Your task to perform on an android device: Open Chrome and go to settings Image 0: 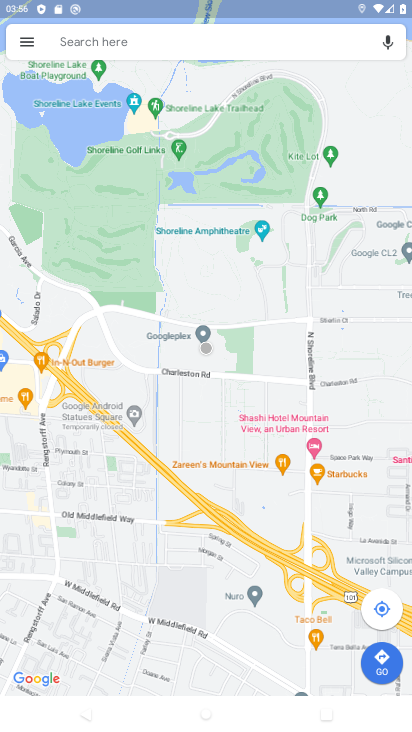
Step 0: press back button
Your task to perform on an android device: Open Chrome and go to settings Image 1: 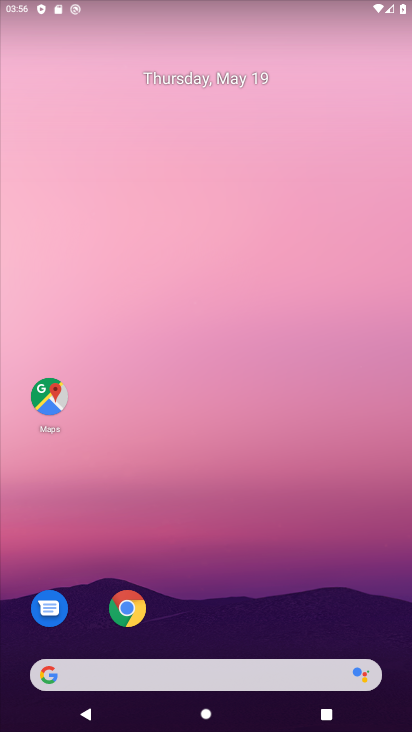
Step 1: click (127, 608)
Your task to perform on an android device: Open Chrome and go to settings Image 2: 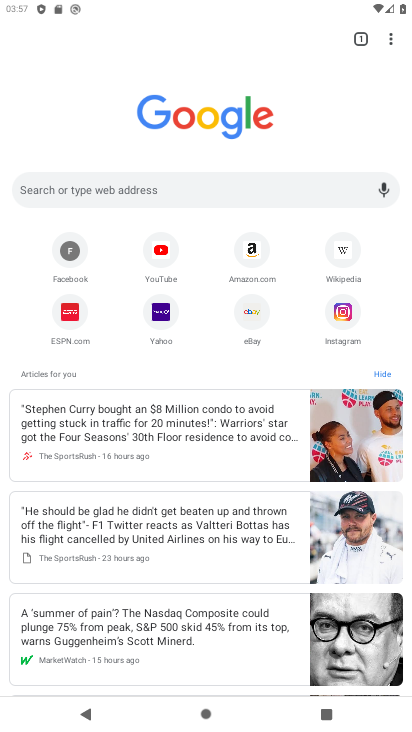
Step 2: click (391, 40)
Your task to perform on an android device: Open Chrome and go to settings Image 3: 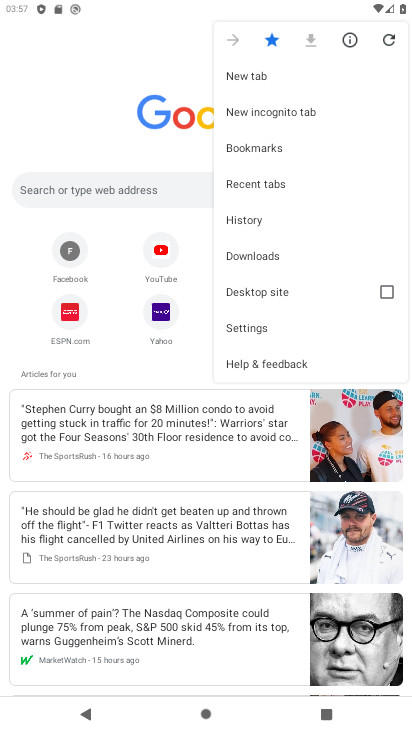
Step 3: click (264, 326)
Your task to perform on an android device: Open Chrome and go to settings Image 4: 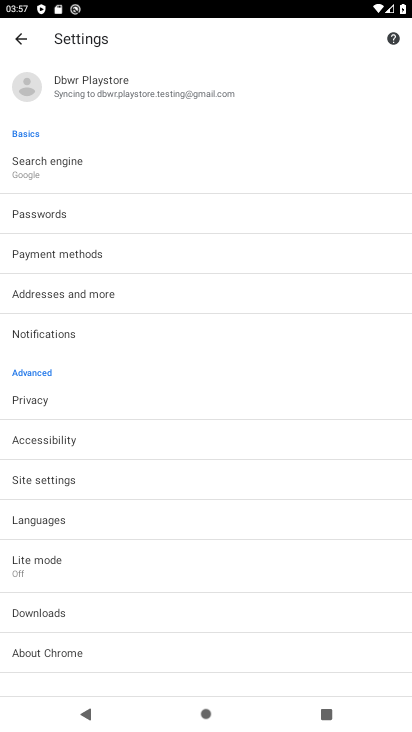
Step 4: task complete